Your task to perform on an android device: Open the map Image 0: 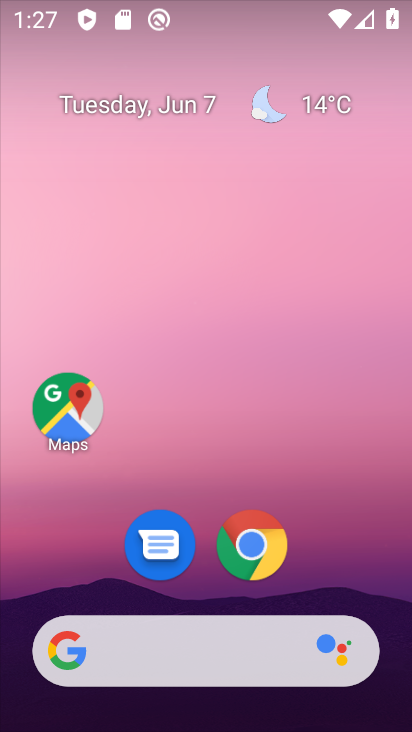
Step 0: click (68, 423)
Your task to perform on an android device: Open the map Image 1: 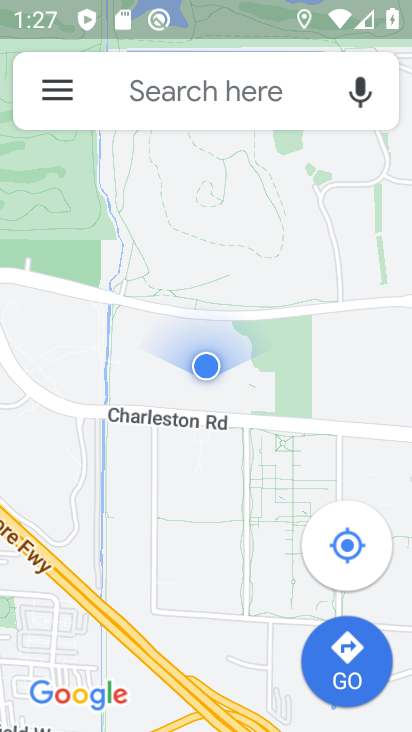
Step 1: task complete